Your task to perform on an android device: Show me popular games on the Play Store Image 0: 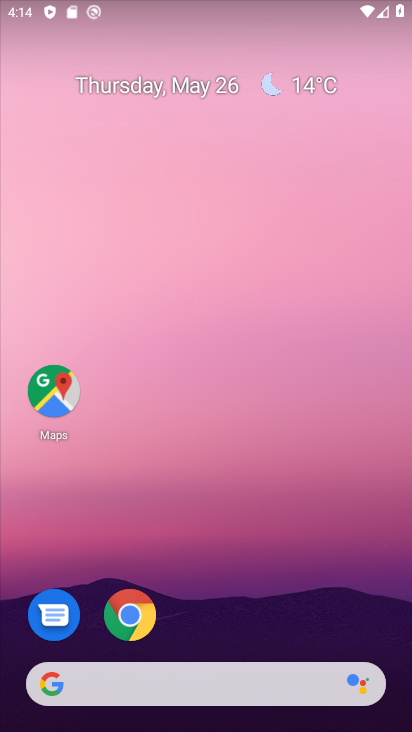
Step 0: drag from (227, 613) to (228, 187)
Your task to perform on an android device: Show me popular games on the Play Store Image 1: 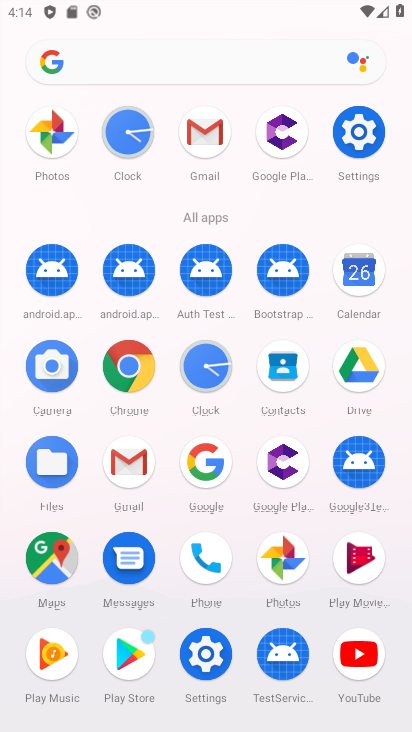
Step 1: click (124, 655)
Your task to perform on an android device: Show me popular games on the Play Store Image 2: 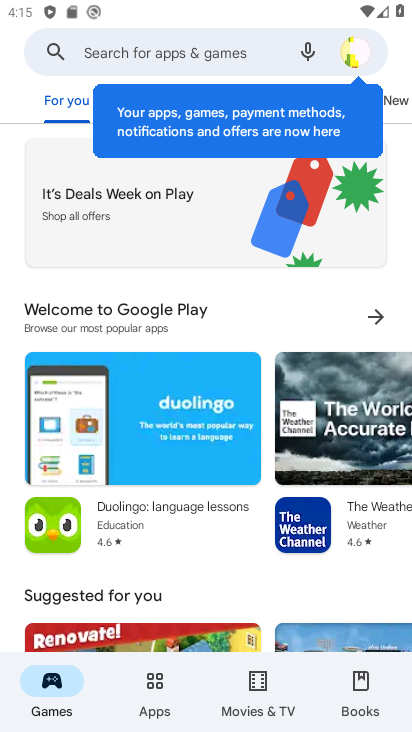
Step 2: task complete